Your task to perform on an android device: Turn on the flashlight Image 0: 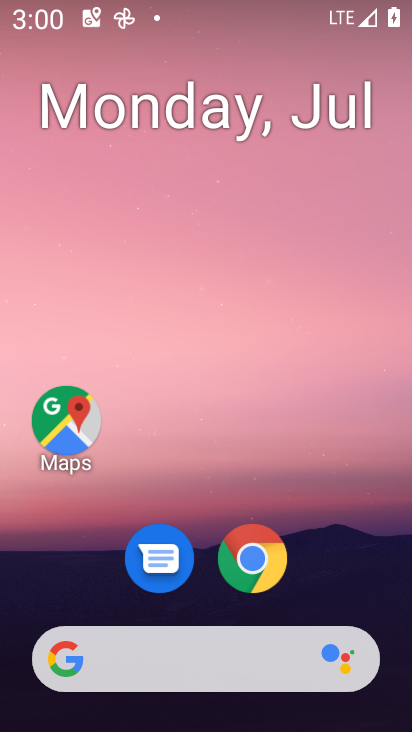
Step 0: press home button
Your task to perform on an android device: Turn on the flashlight Image 1: 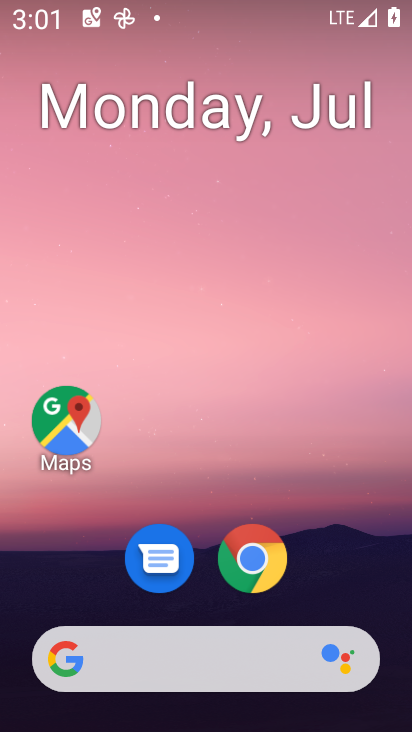
Step 1: drag from (245, 0) to (277, 374)
Your task to perform on an android device: Turn on the flashlight Image 2: 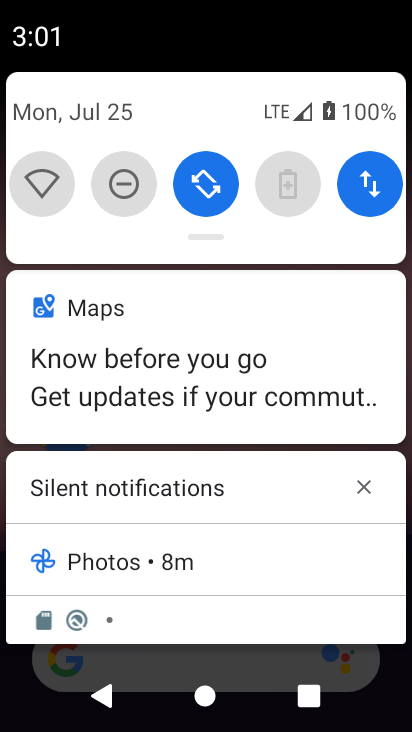
Step 2: drag from (230, 97) to (218, 423)
Your task to perform on an android device: Turn on the flashlight Image 3: 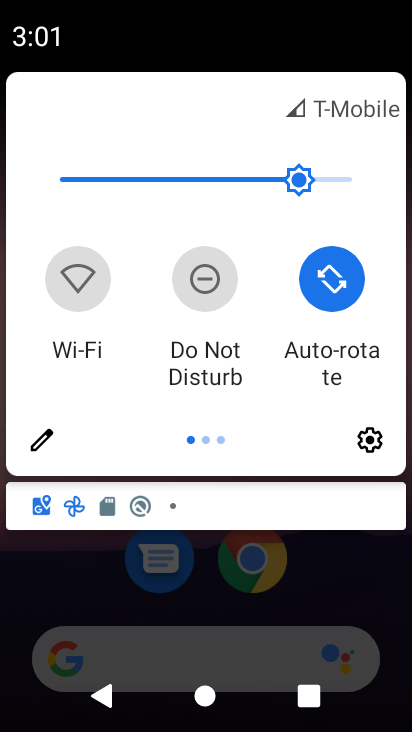
Step 3: click (56, 441)
Your task to perform on an android device: Turn on the flashlight Image 4: 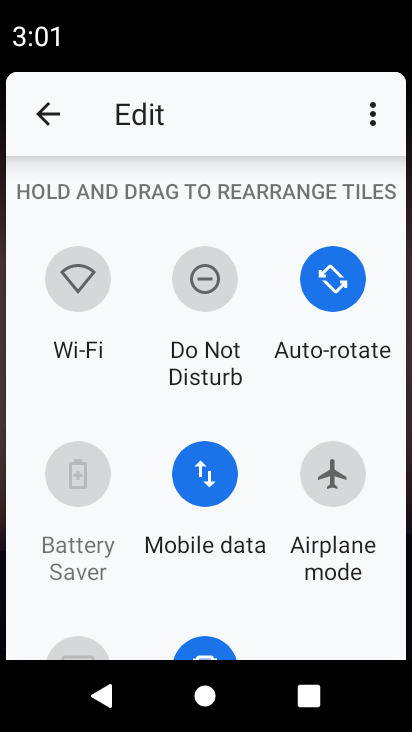
Step 4: task complete